Your task to perform on an android device: Go to sound settings Image 0: 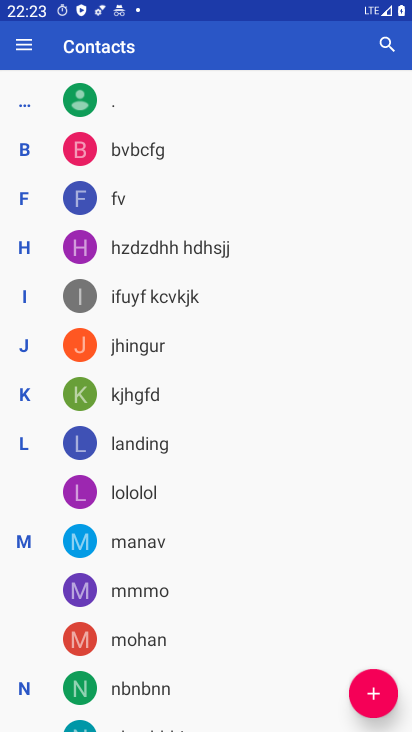
Step 0: press back button
Your task to perform on an android device: Go to sound settings Image 1: 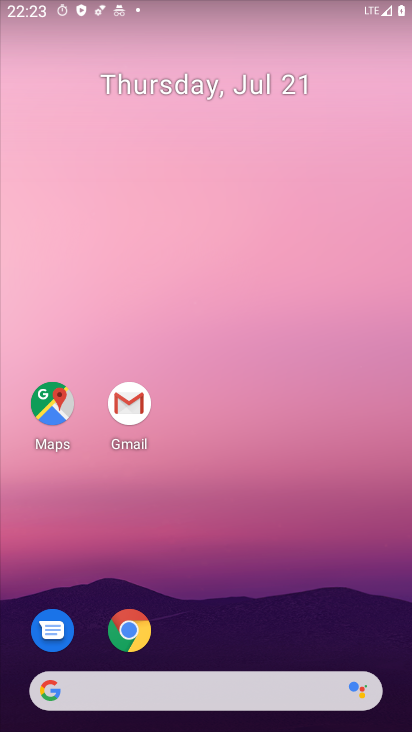
Step 1: drag from (232, 701) to (156, 237)
Your task to perform on an android device: Go to sound settings Image 2: 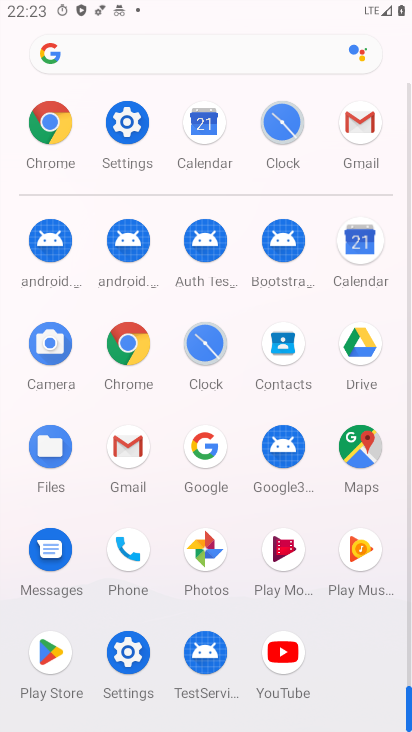
Step 2: click (117, 153)
Your task to perform on an android device: Go to sound settings Image 3: 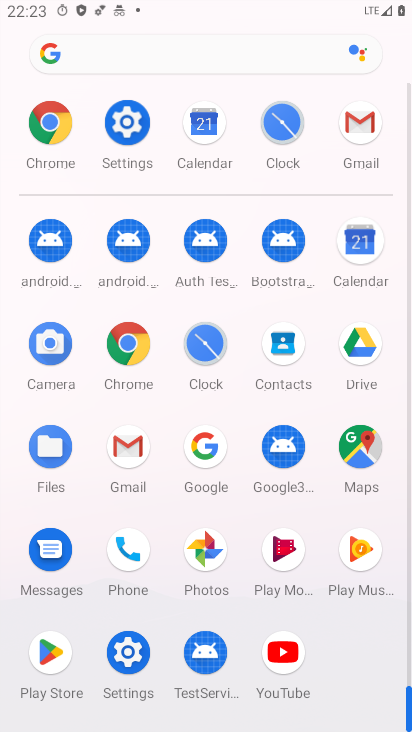
Step 3: click (123, 147)
Your task to perform on an android device: Go to sound settings Image 4: 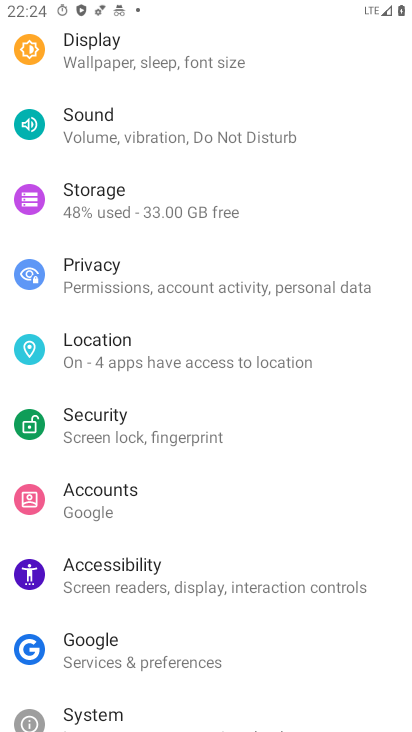
Step 4: click (97, 129)
Your task to perform on an android device: Go to sound settings Image 5: 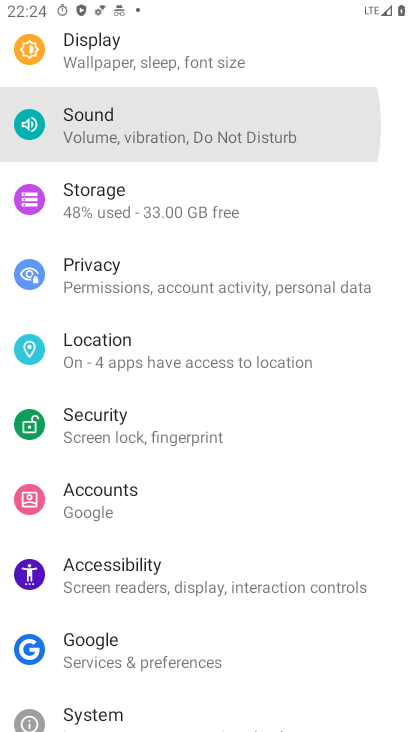
Step 5: click (96, 128)
Your task to perform on an android device: Go to sound settings Image 6: 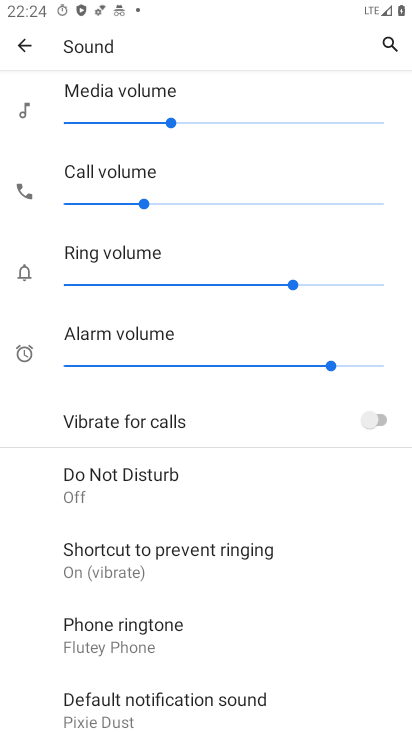
Step 6: task complete